Your task to perform on an android device: see sites visited before in the chrome app Image 0: 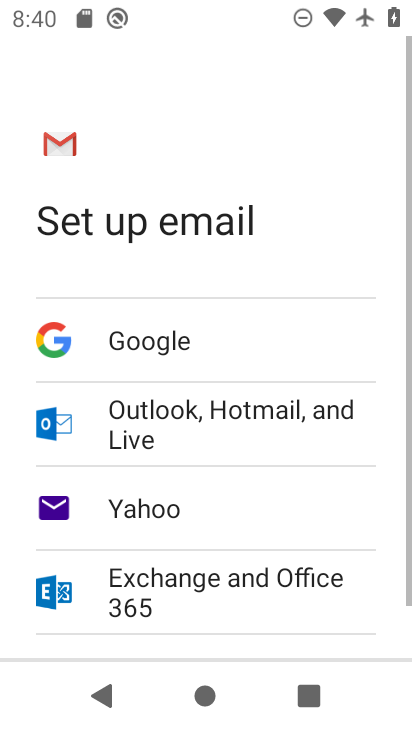
Step 0: press home button
Your task to perform on an android device: see sites visited before in the chrome app Image 1: 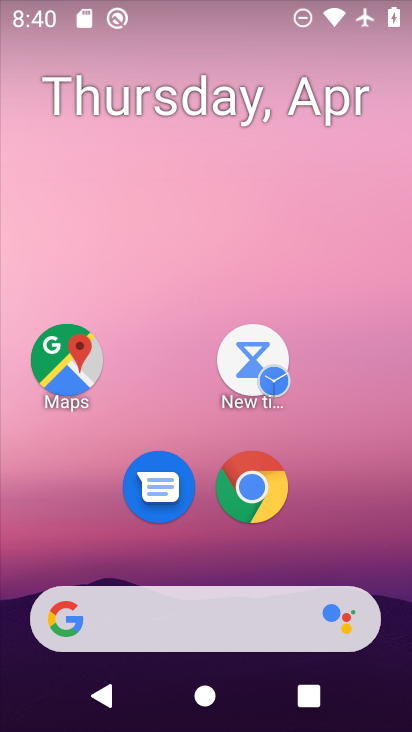
Step 1: click (258, 483)
Your task to perform on an android device: see sites visited before in the chrome app Image 2: 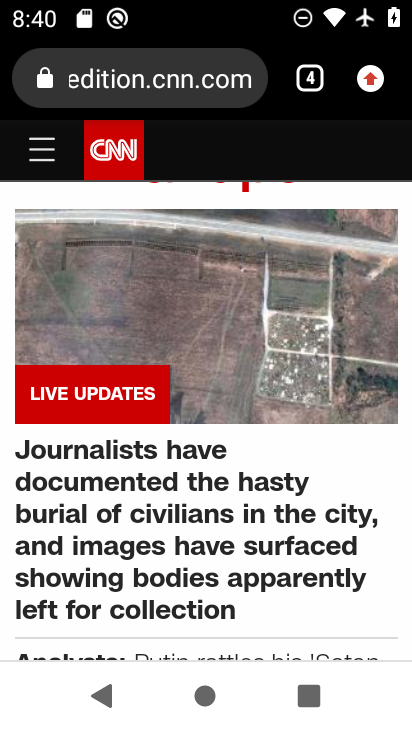
Step 2: task complete